Your task to perform on an android device: When is my next meeting? Image 0: 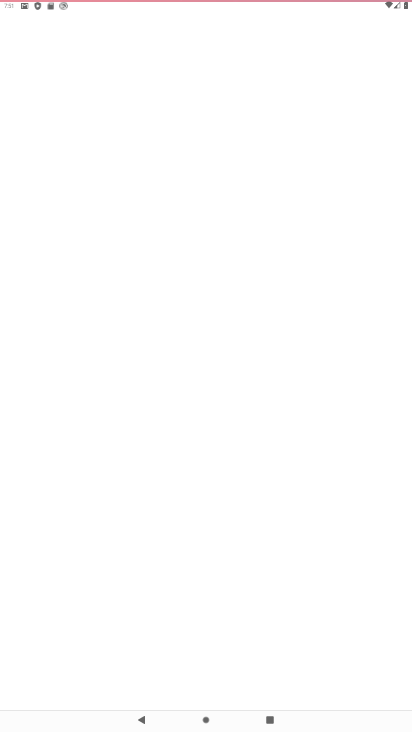
Step 0: click (277, 4)
Your task to perform on an android device: When is my next meeting? Image 1: 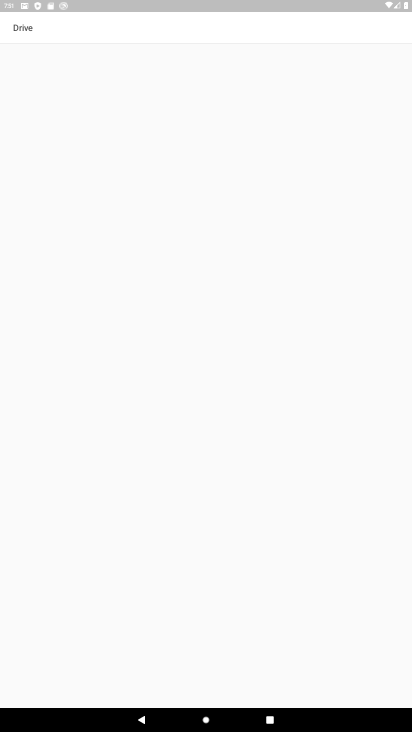
Step 1: press home button
Your task to perform on an android device: When is my next meeting? Image 2: 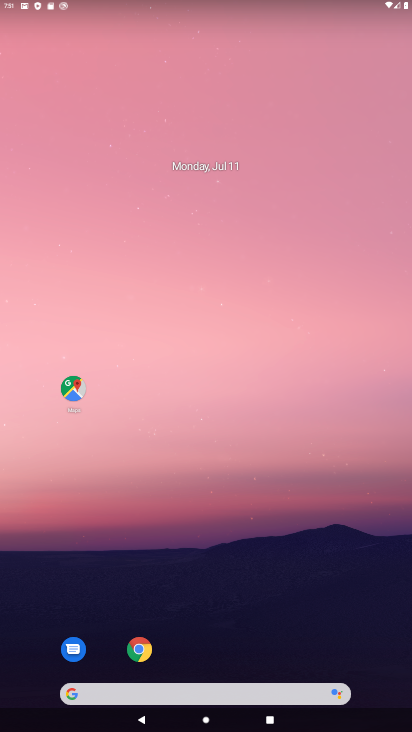
Step 2: drag from (296, 648) to (370, 36)
Your task to perform on an android device: When is my next meeting? Image 3: 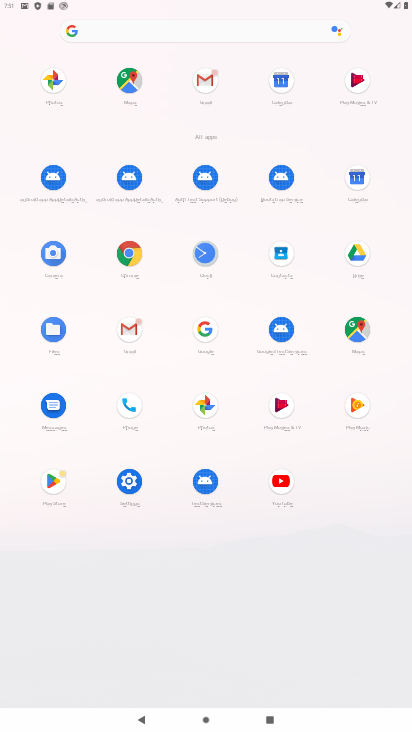
Step 3: click (357, 183)
Your task to perform on an android device: When is my next meeting? Image 4: 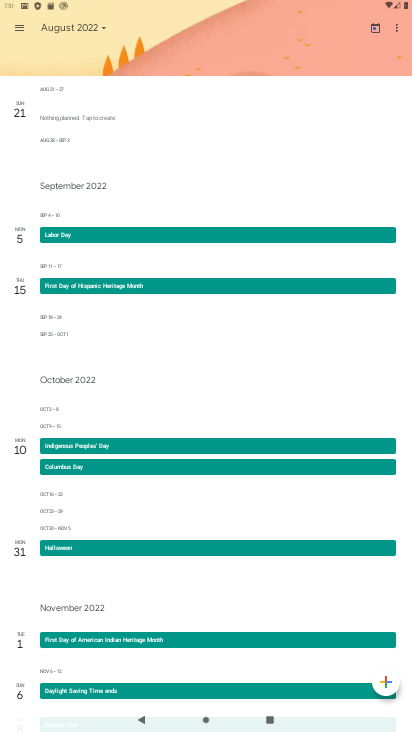
Step 4: click (75, 21)
Your task to perform on an android device: When is my next meeting? Image 5: 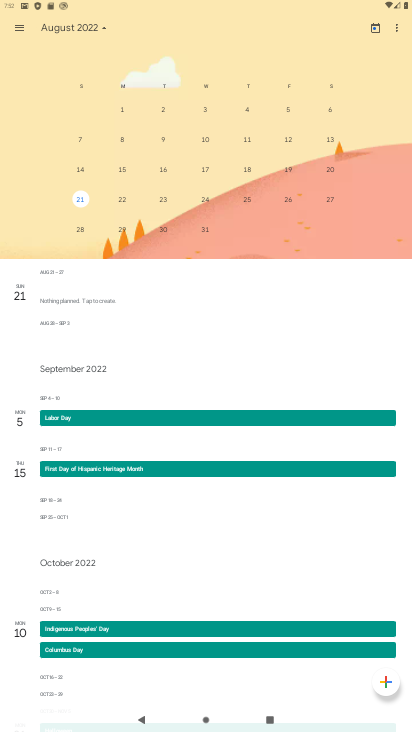
Step 5: drag from (97, 189) to (398, 243)
Your task to perform on an android device: When is my next meeting? Image 6: 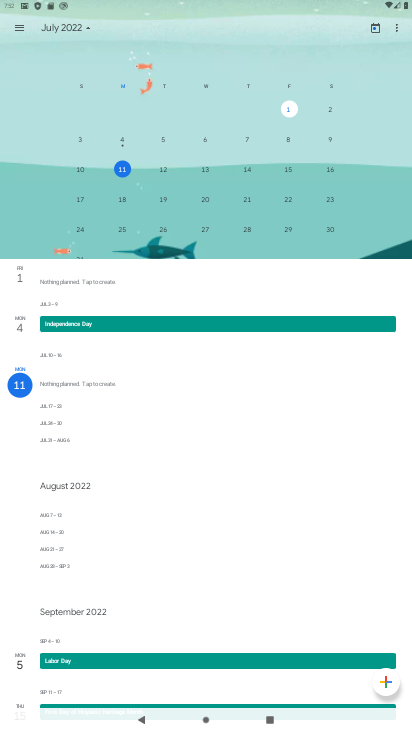
Step 6: click (125, 166)
Your task to perform on an android device: When is my next meeting? Image 7: 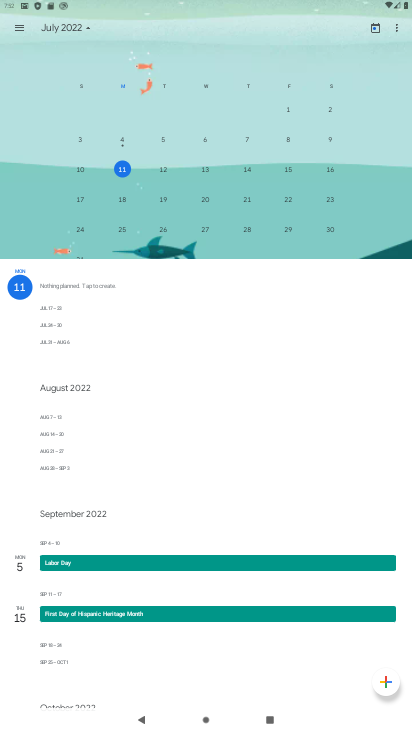
Step 7: task complete